Your task to perform on an android device: open app "Google Home" (install if not already installed) Image 0: 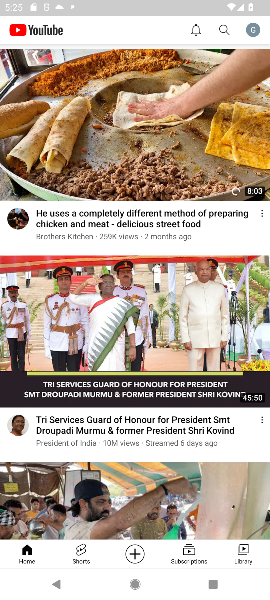
Step 0: press home button
Your task to perform on an android device: open app "Google Home" (install if not already installed) Image 1: 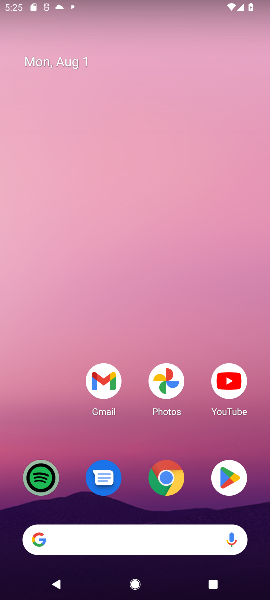
Step 1: click (232, 483)
Your task to perform on an android device: open app "Google Home" (install if not already installed) Image 2: 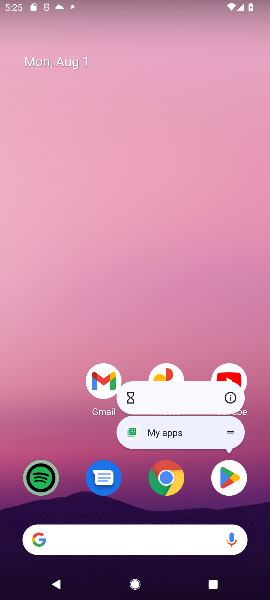
Step 2: click (232, 483)
Your task to perform on an android device: open app "Google Home" (install if not already installed) Image 3: 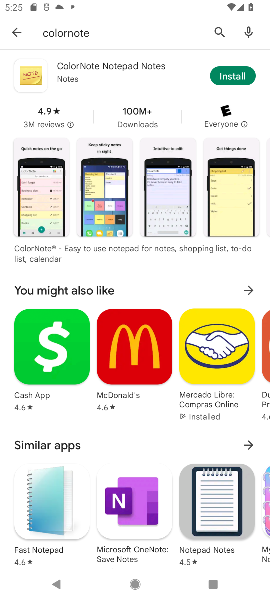
Step 3: click (216, 29)
Your task to perform on an android device: open app "Google Home" (install if not already installed) Image 4: 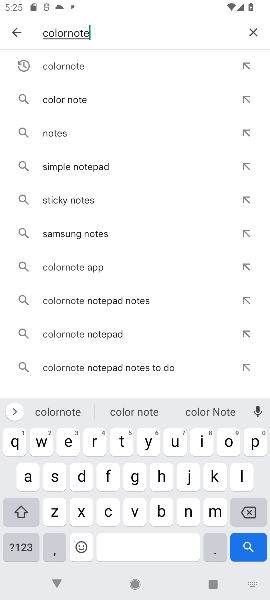
Step 4: click (252, 32)
Your task to perform on an android device: open app "Google Home" (install if not already installed) Image 5: 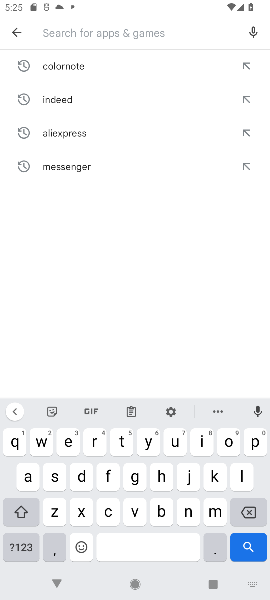
Step 5: type "google home"
Your task to perform on an android device: open app "Google Home" (install if not already installed) Image 6: 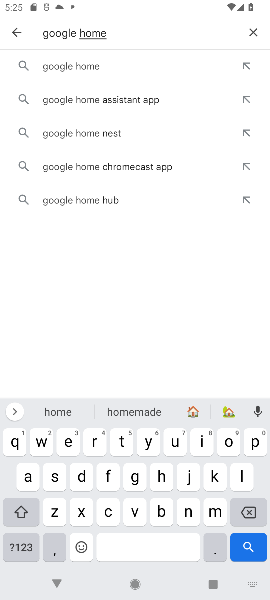
Step 6: click (93, 73)
Your task to perform on an android device: open app "Google Home" (install if not already installed) Image 7: 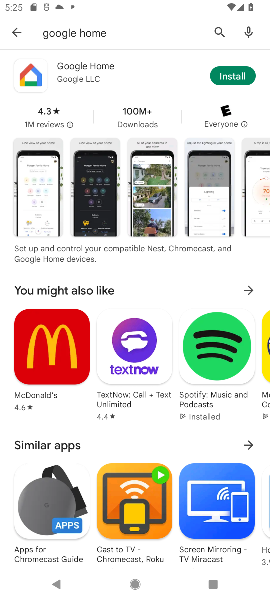
Step 7: click (228, 85)
Your task to perform on an android device: open app "Google Home" (install if not already installed) Image 8: 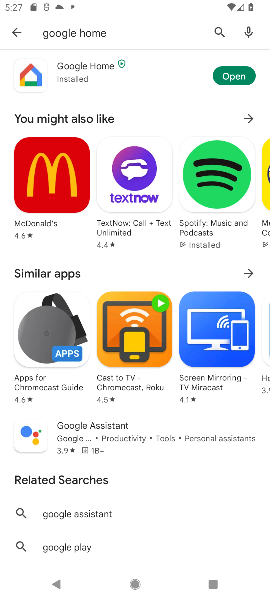
Step 8: click (222, 66)
Your task to perform on an android device: open app "Google Home" (install if not already installed) Image 9: 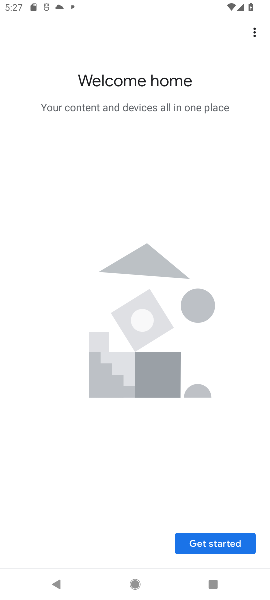
Step 9: task complete